Your task to perform on an android device: Open internet settings Image 0: 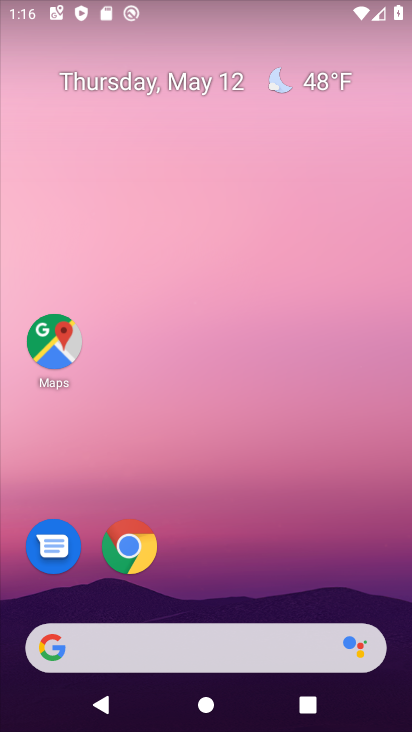
Step 0: drag from (204, 585) to (334, 123)
Your task to perform on an android device: Open internet settings Image 1: 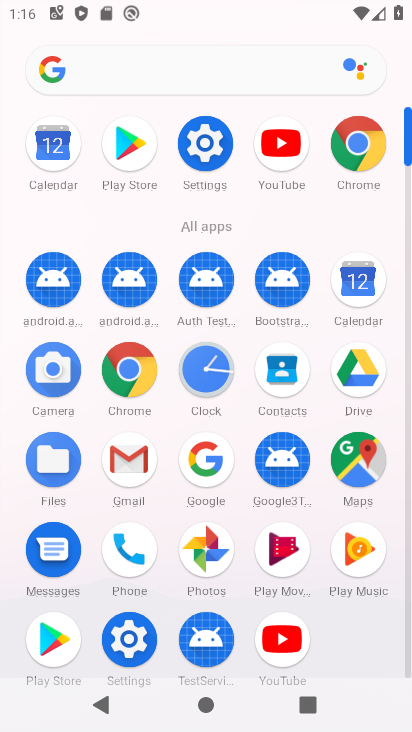
Step 1: click (194, 155)
Your task to perform on an android device: Open internet settings Image 2: 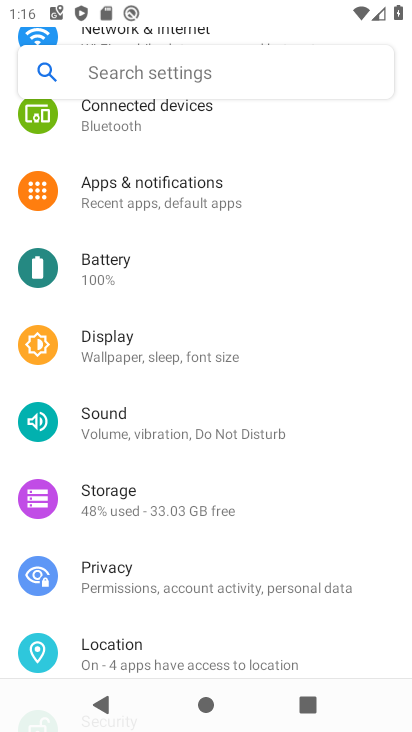
Step 2: drag from (221, 151) to (169, 387)
Your task to perform on an android device: Open internet settings Image 3: 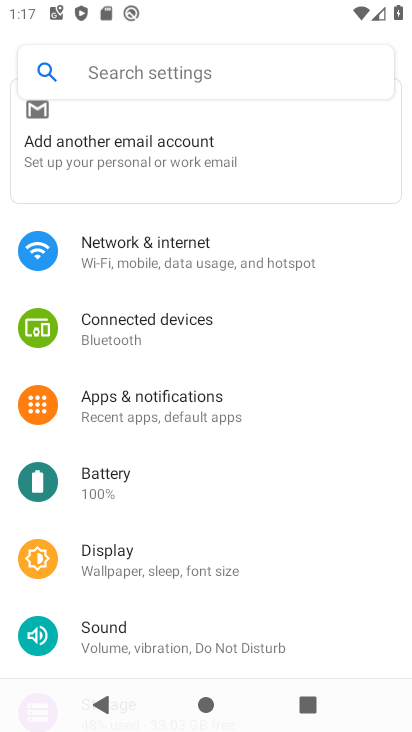
Step 3: click (203, 251)
Your task to perform on an android device: Open internet settings Image 4: 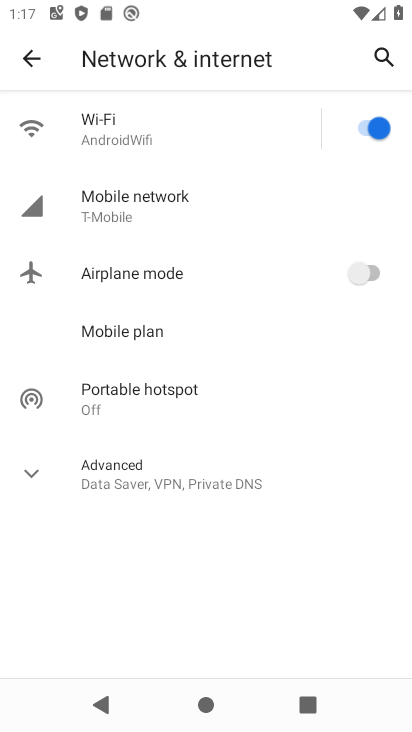
Step 4: task complete